Your task to perform on an android device: turn on location history Image 0: 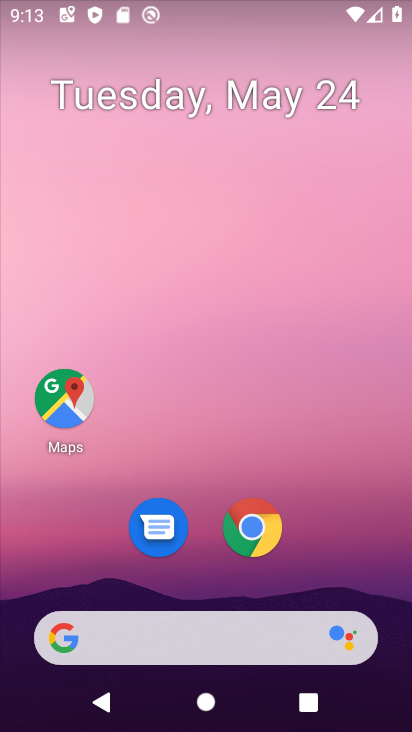
Step 0: drag from (188, 547) to (179, 45)
Your task to perform on an android device: turn on location history Image 1: 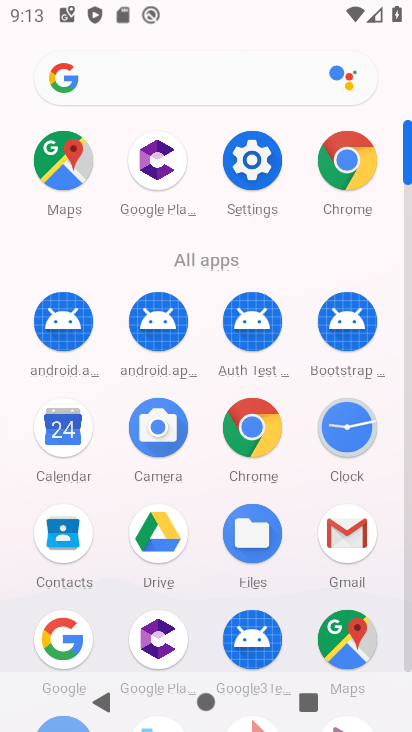
Step 1: click (264, 153)
Your task to perform on an android device: turn on location history Image 2: 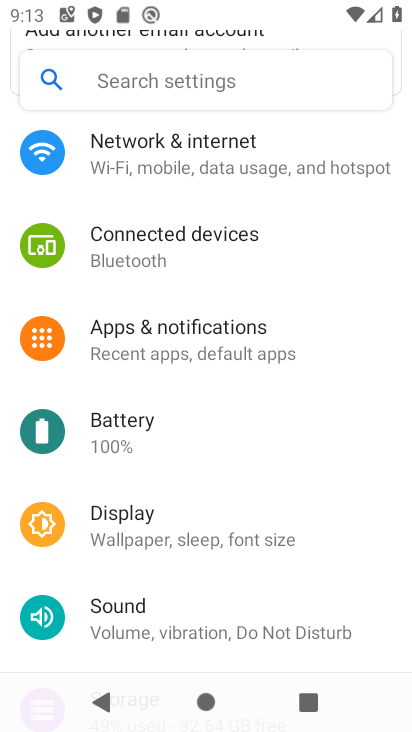
Step 2: drag from (197, 541) to (227, 191)
Your task to perform on an android device: turn on location history Image 3: 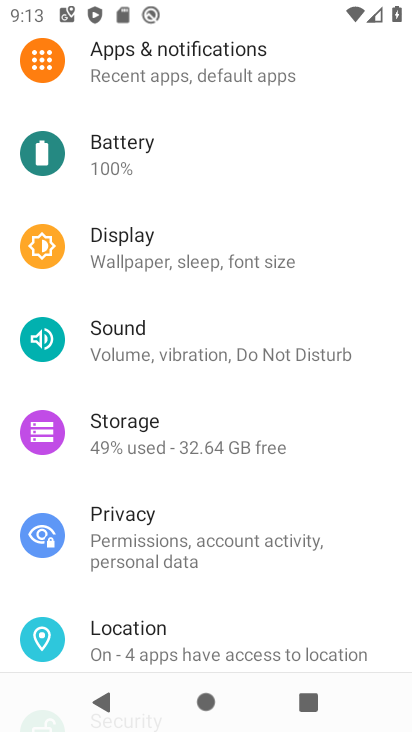
Step 3: click (174, 630)
Your task to perform on an android device: turn on location history Image 4: 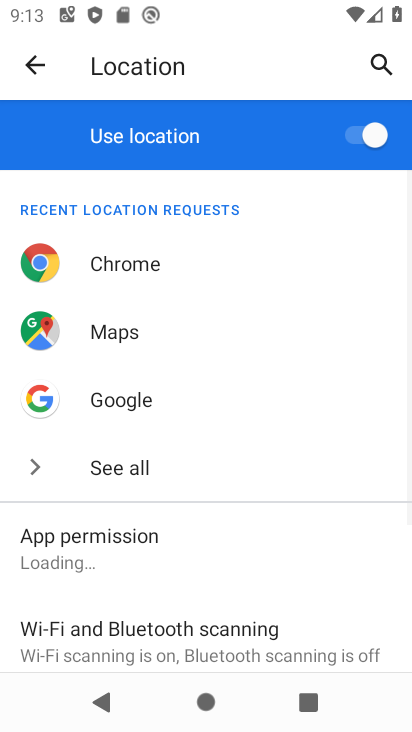
Step 4: task complete